Your task to perform on an android device: change keyboard looks Image 0: 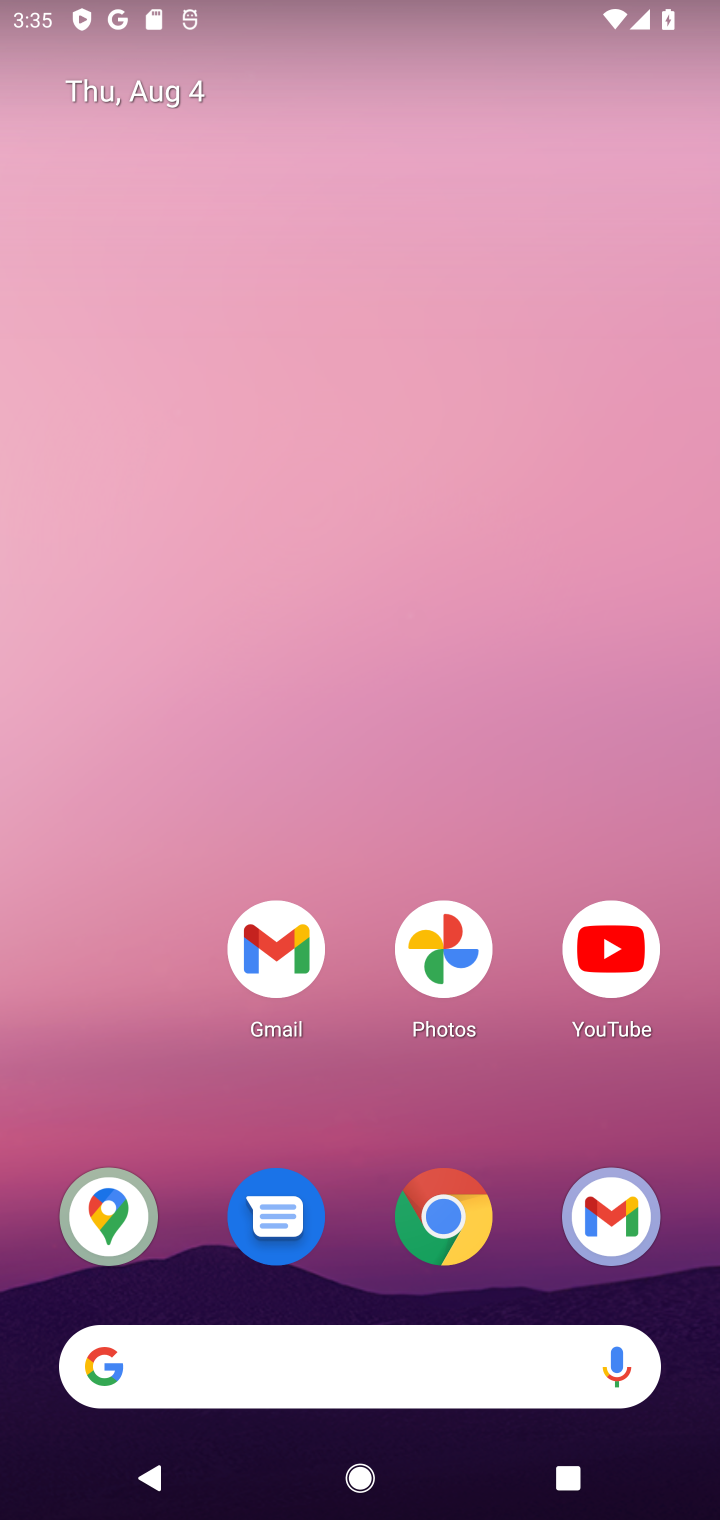
Step 0: drag from (215, 554) to (280, 18)
Your task to perform on an android device: change keyboard looks Image 1: 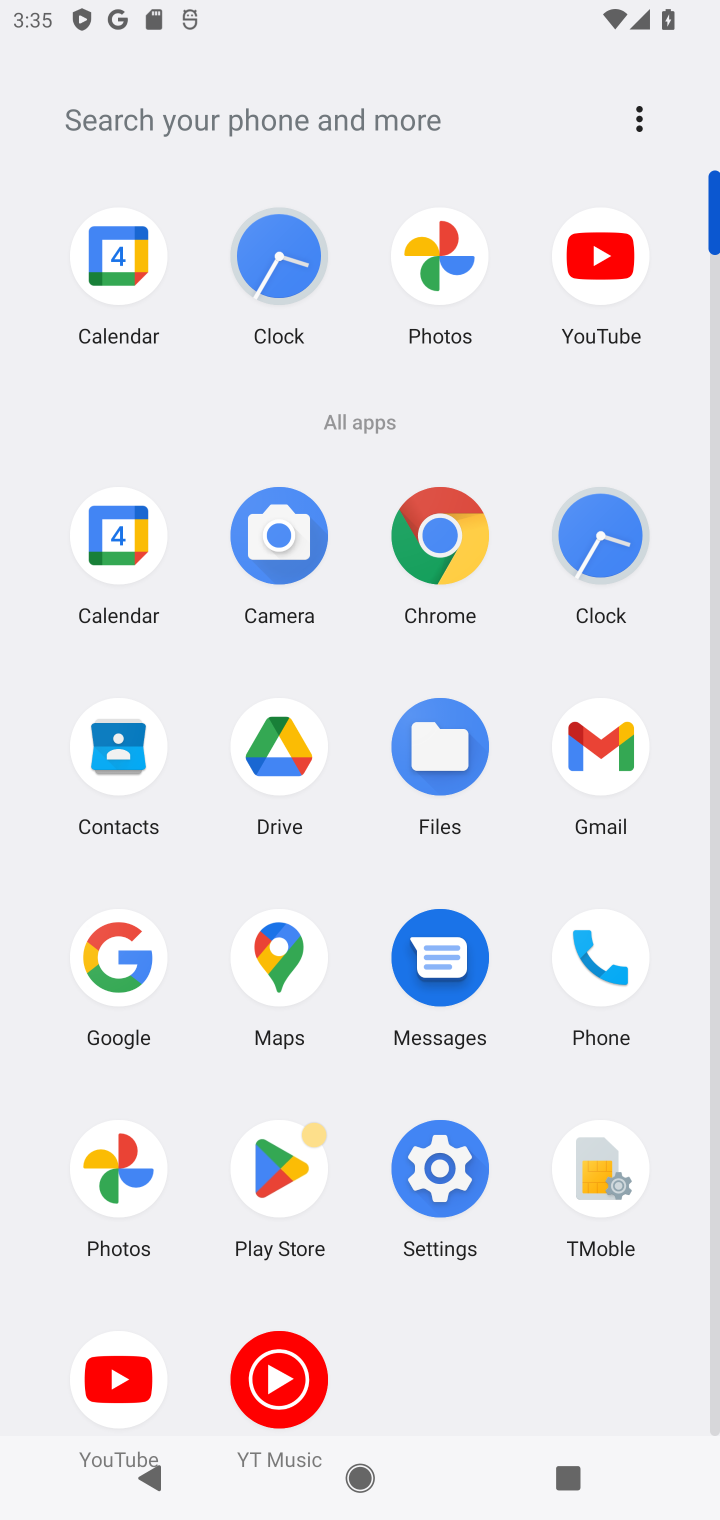
Step 1: click (414, 1171)
Your task to perform on an android device: change keyboard looks Image 2: 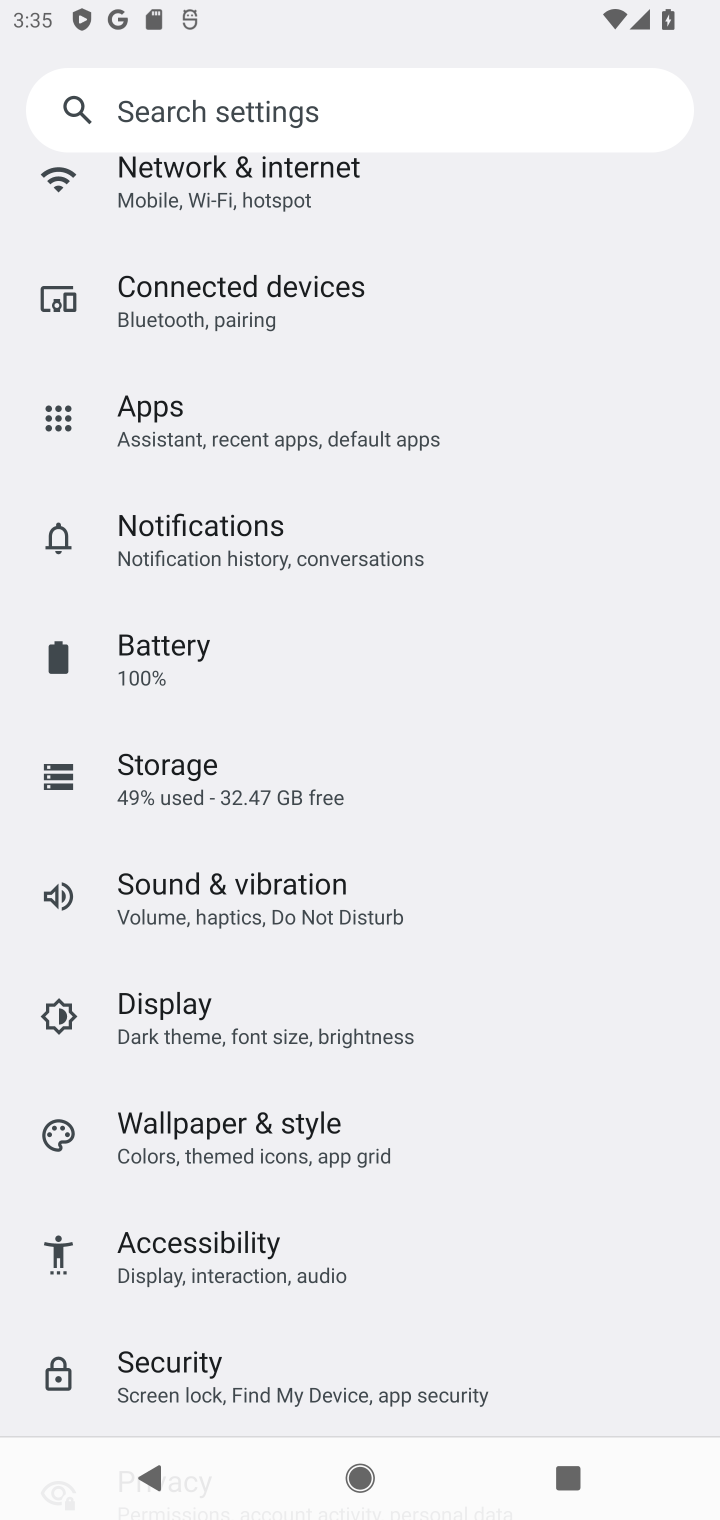
Step 2: drag from (338, 1296) to (614, 58)
Your task to perform on an android device: change keyboard looks Image 3: 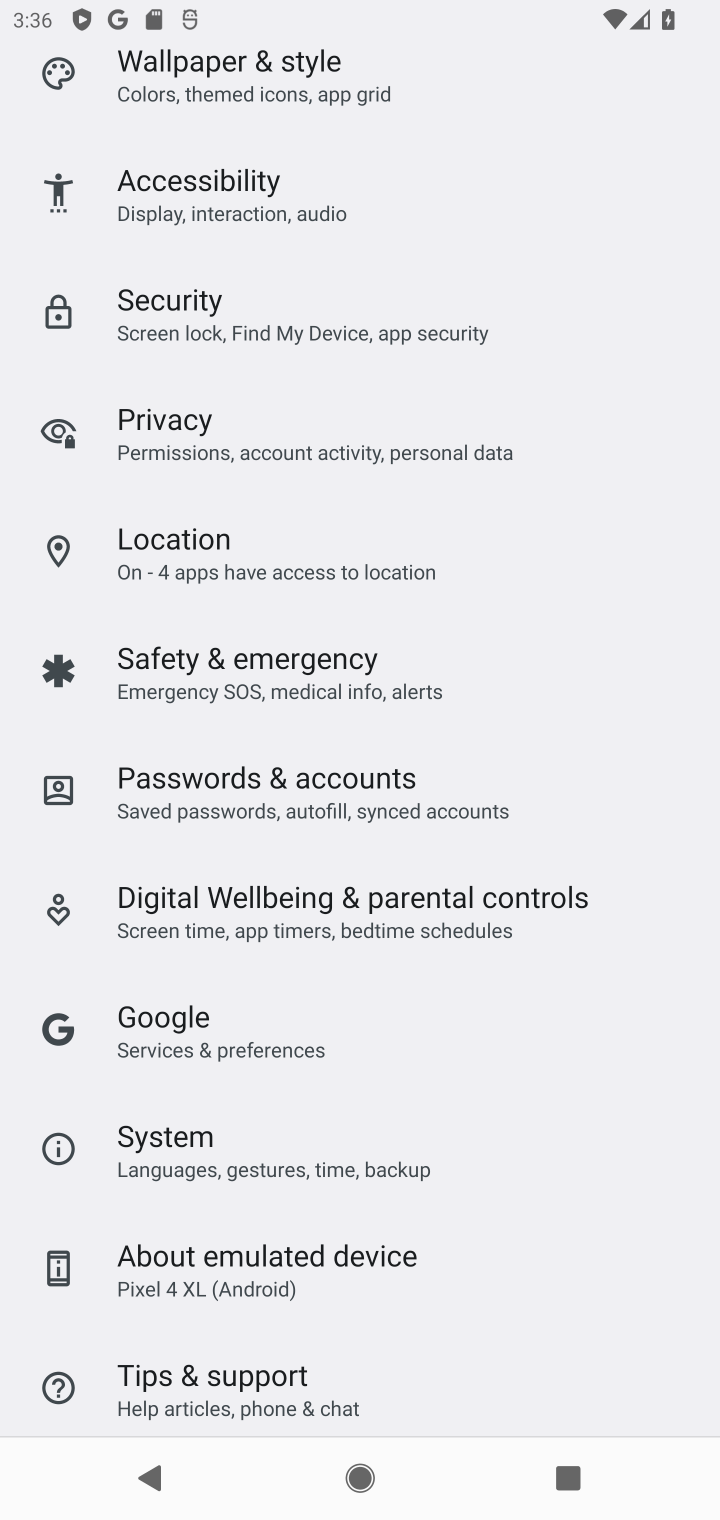
Step 3: drag from (347, 1335) to (483, 88)
Your task to perform on an android device: change keyboard looks Image 4: 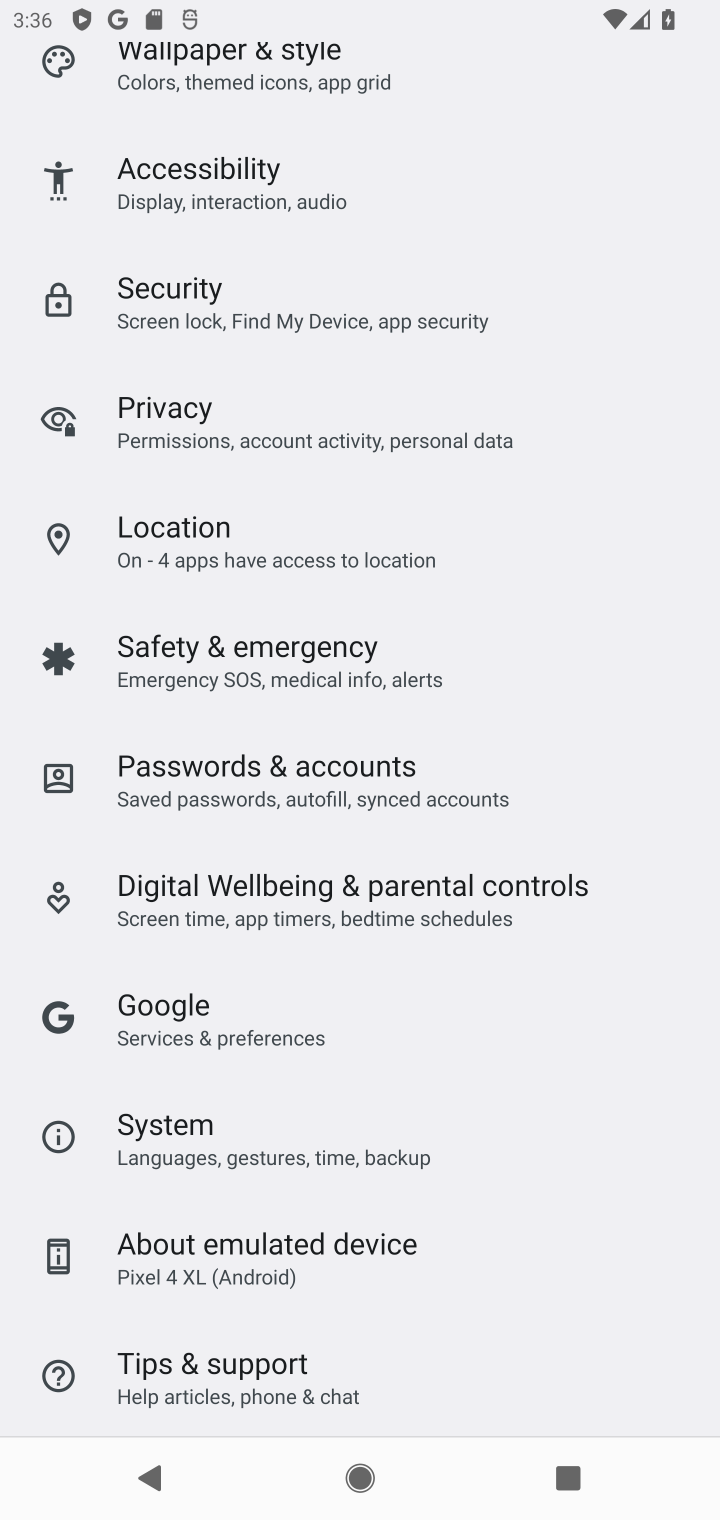
Step 4: click (249, 1131)
Your task to perform on an android device: change keyboard looks Image 5: 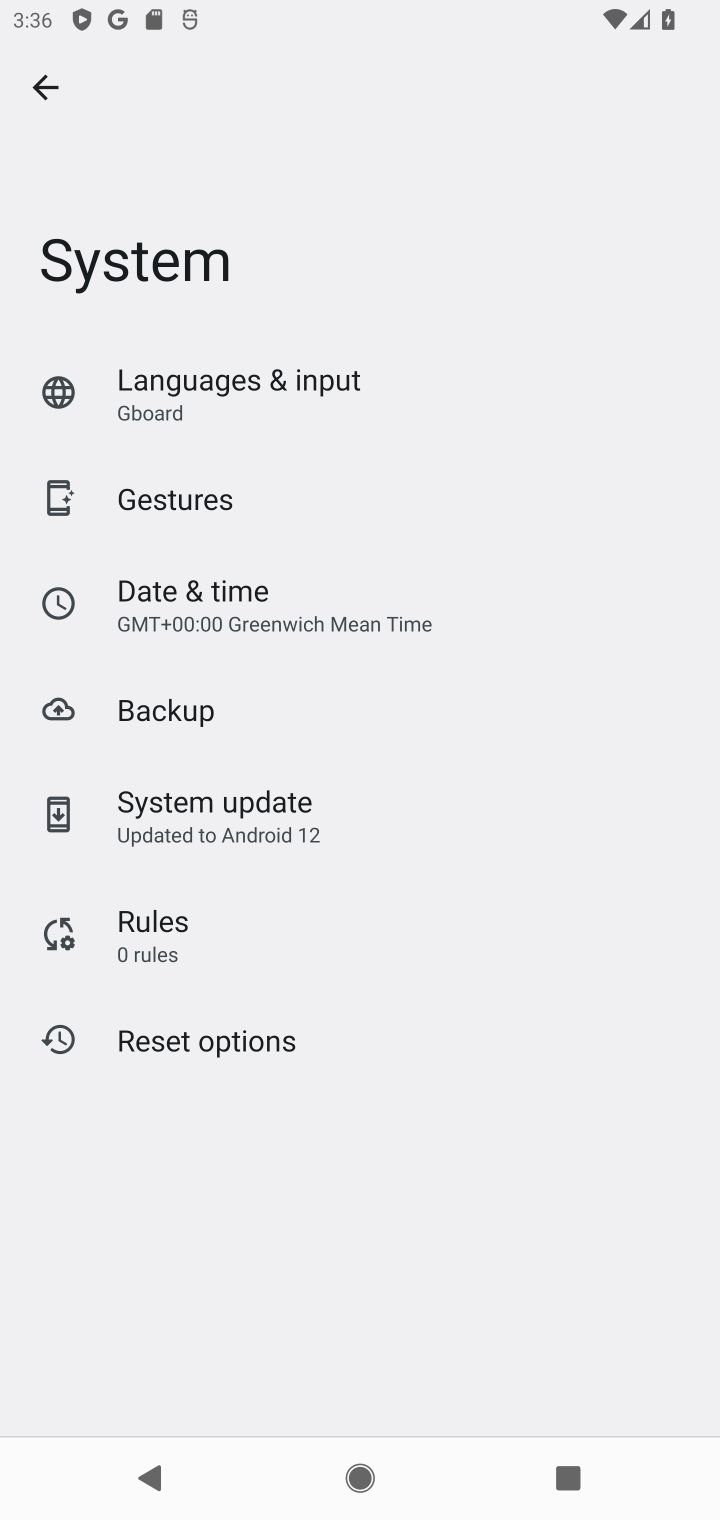
Step 5: click (248, 392)
Your task to perform on an android device: change keyboard looks Image 6: 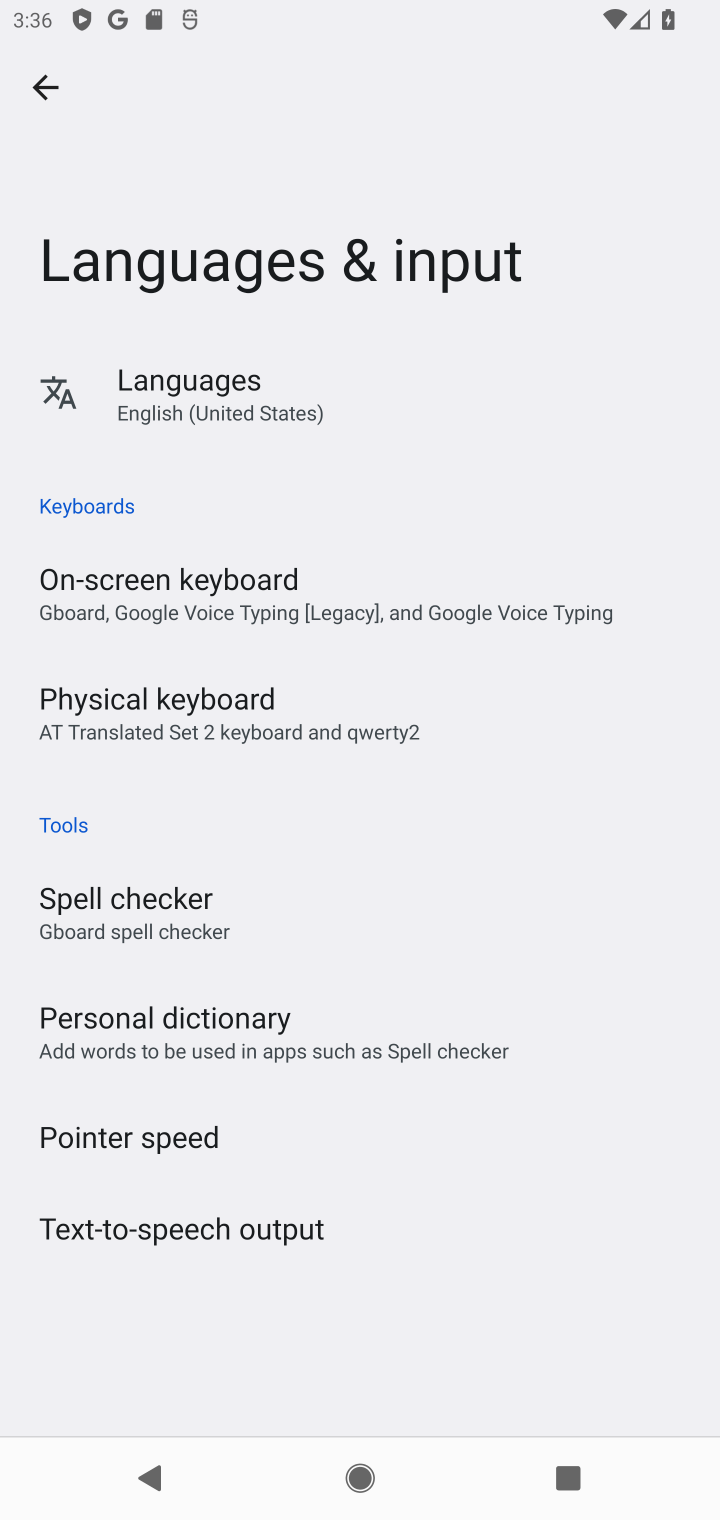
Step 6: click (264, 378)
Your task to perform on an android device: change keyboard looks Image 7: 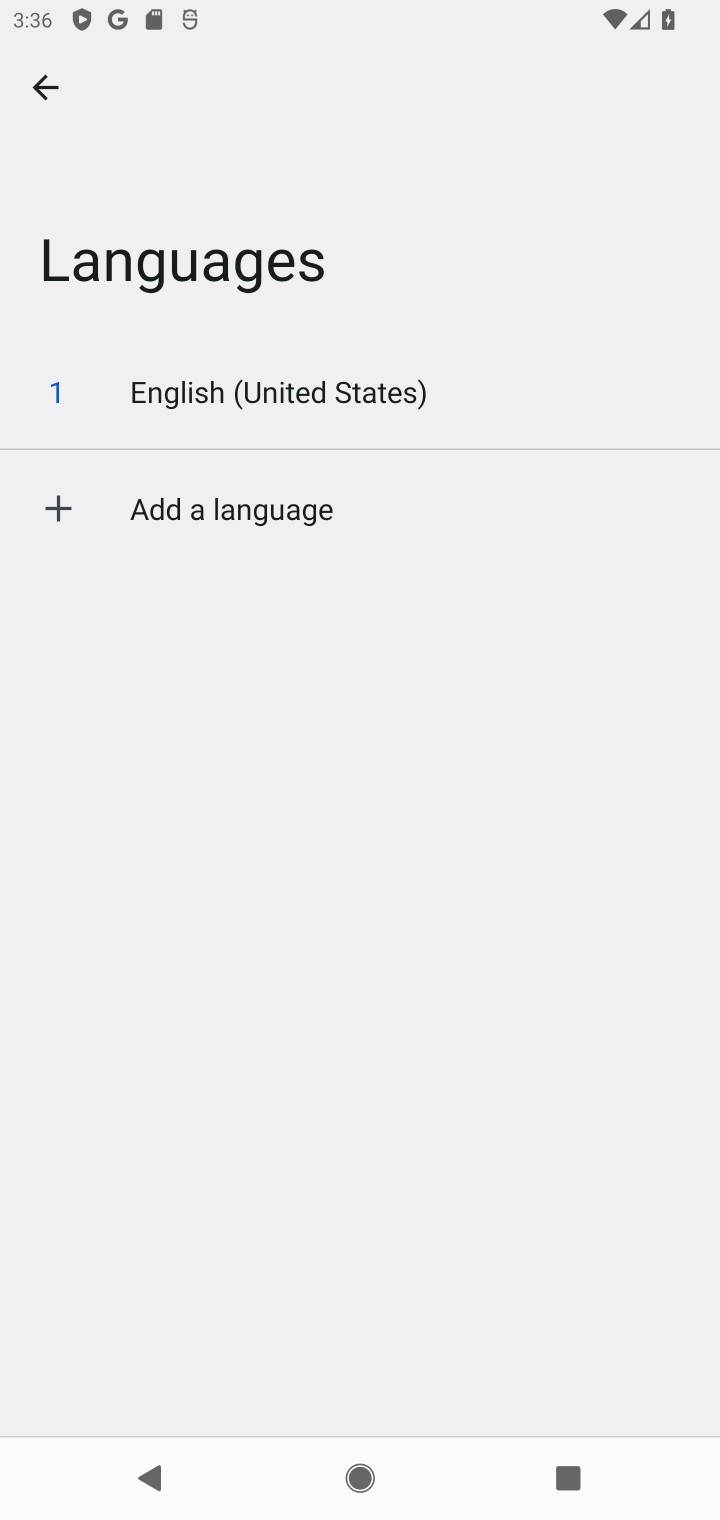
Step 7: click (30, 88)
Your task to perform on an android device: change keyboard looks Image 8: 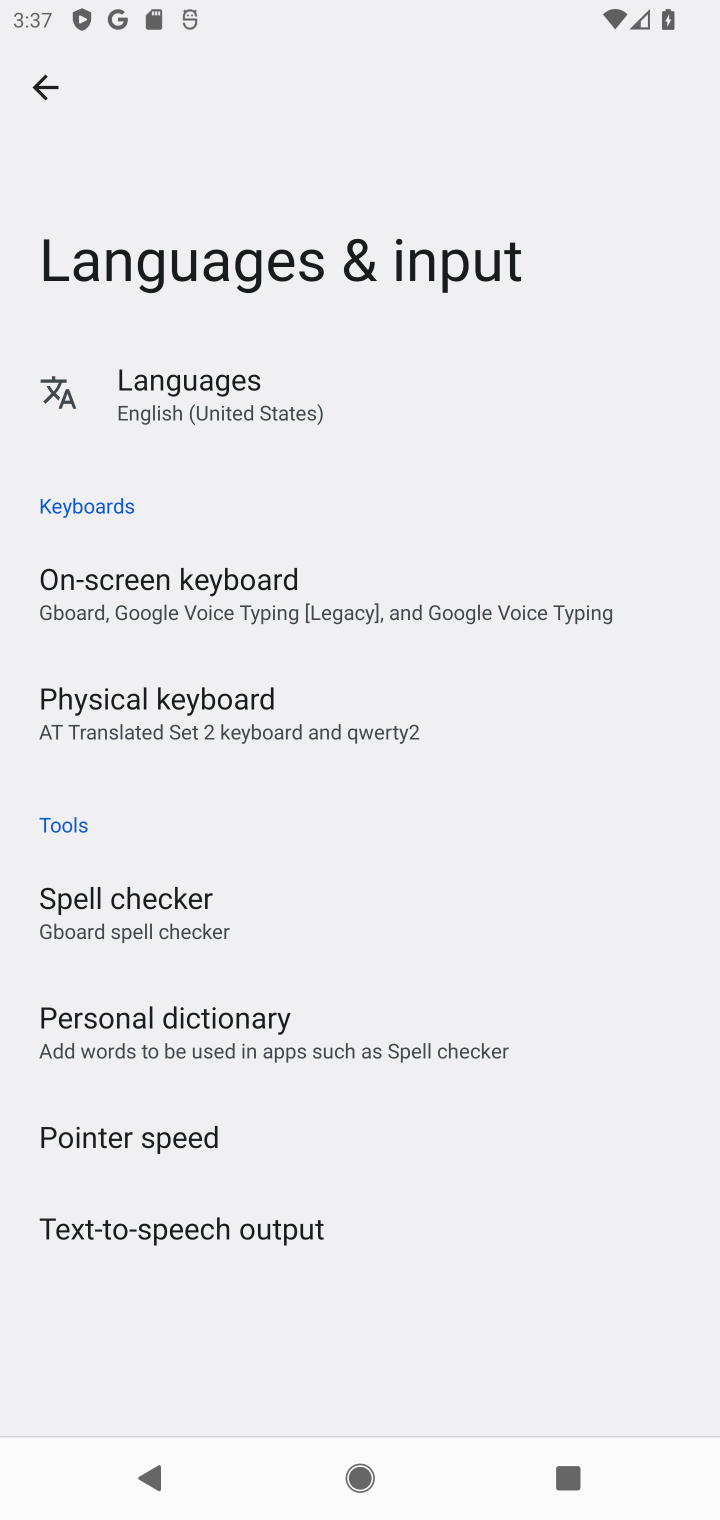
Step 8: click (329, 587)
Your task to perform on an android device: change keyboard looks Image 9: 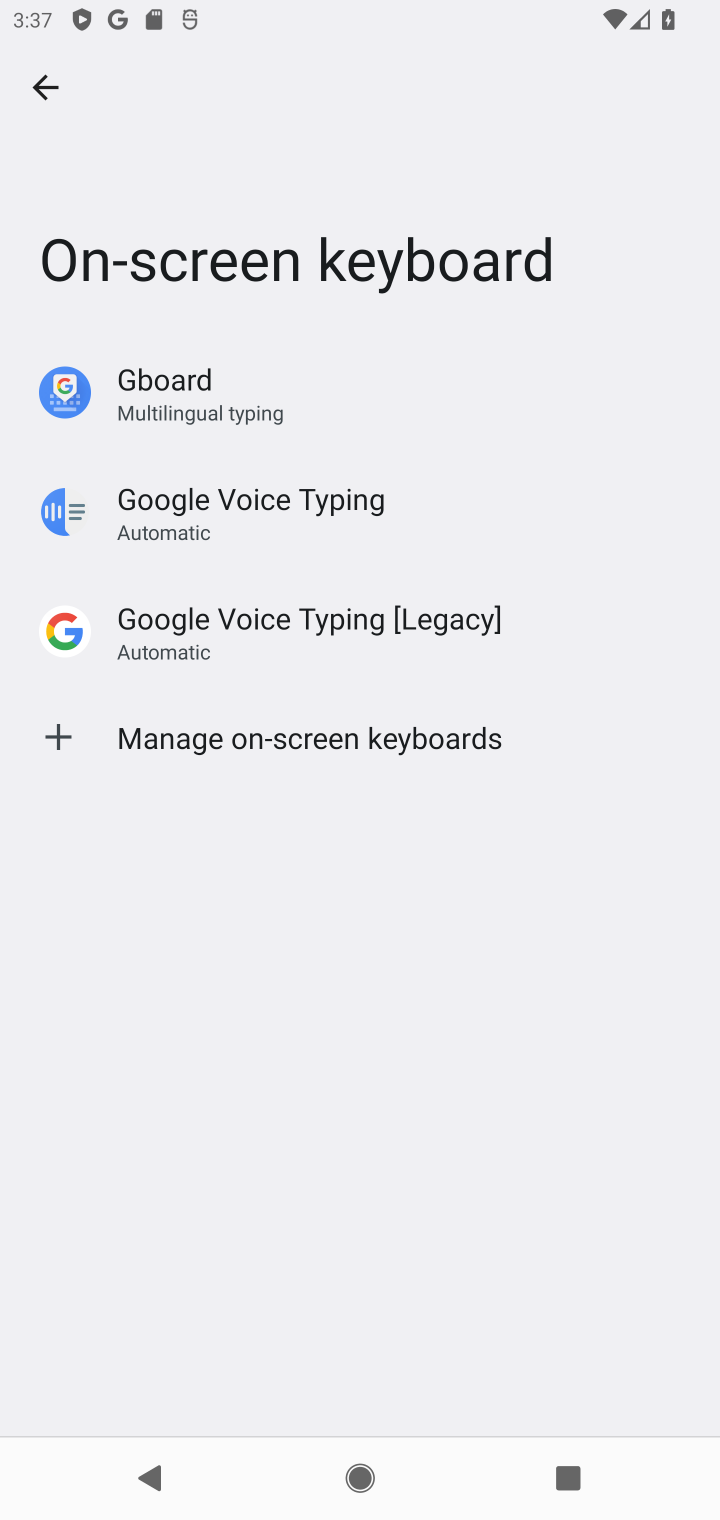
Step 9: click (72, 78)
Your task to perform on an android device: change keyboard looks Image 10: 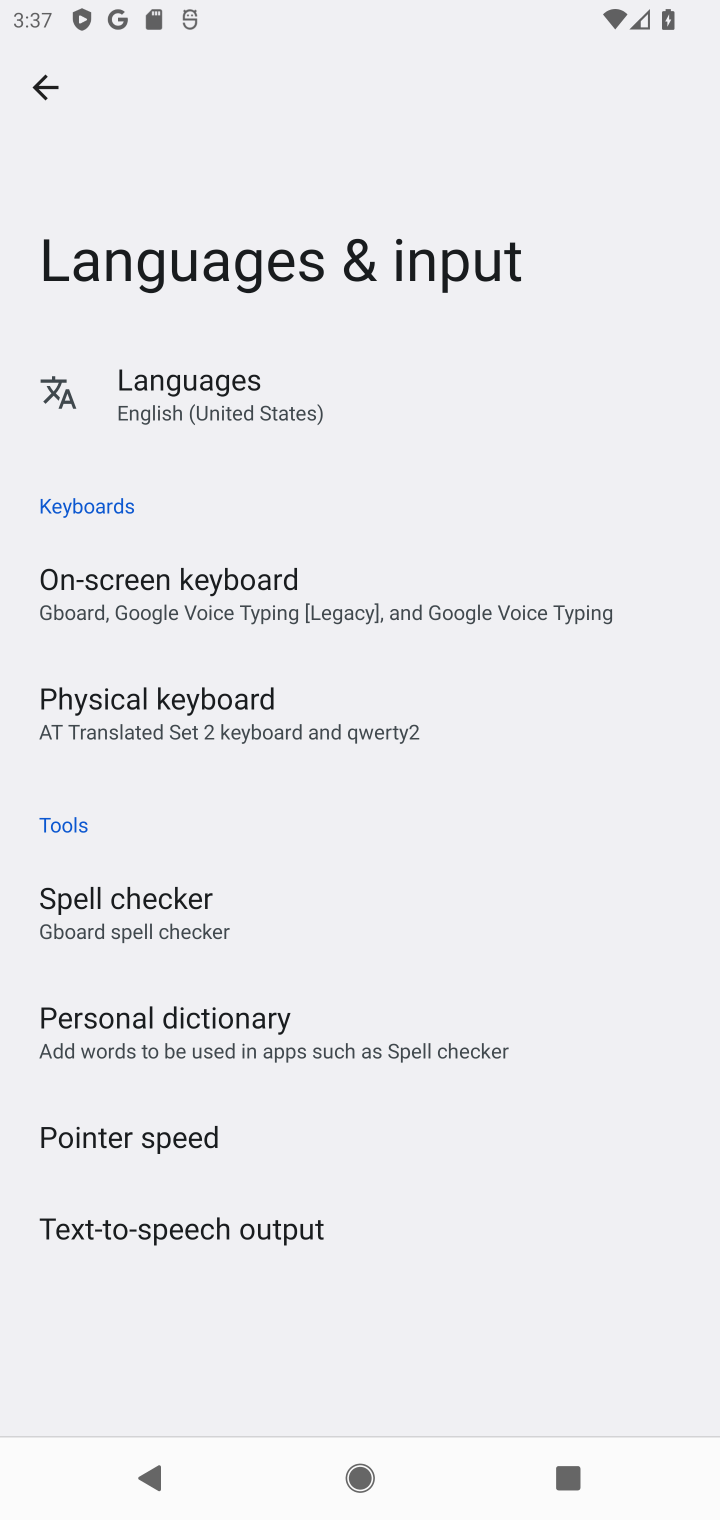
Step 10: click (304, 700)
Your task to perform on an android device: change keyboard looks Image 11: 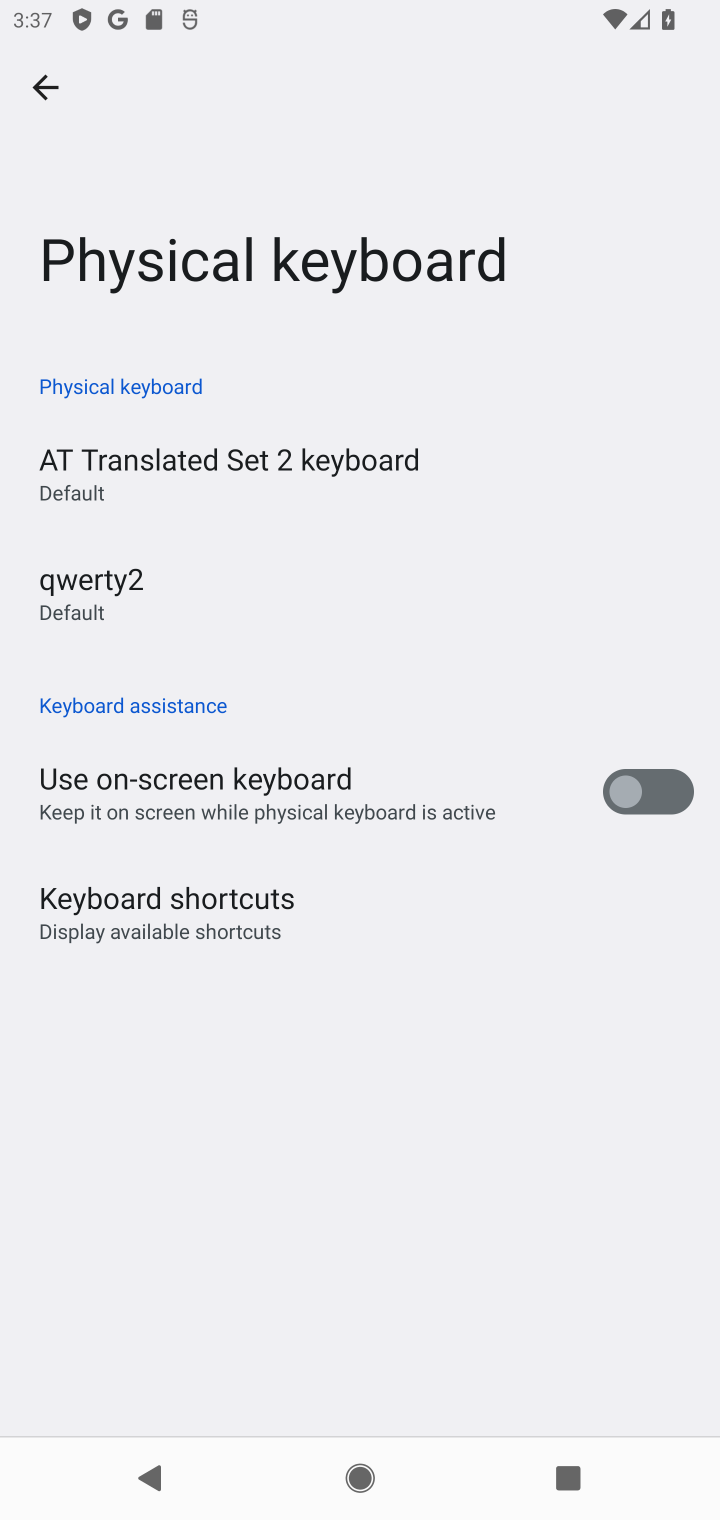
Step 11: click (43, 78)
Your task to perform on an android device: change keyboard looks Image 12: 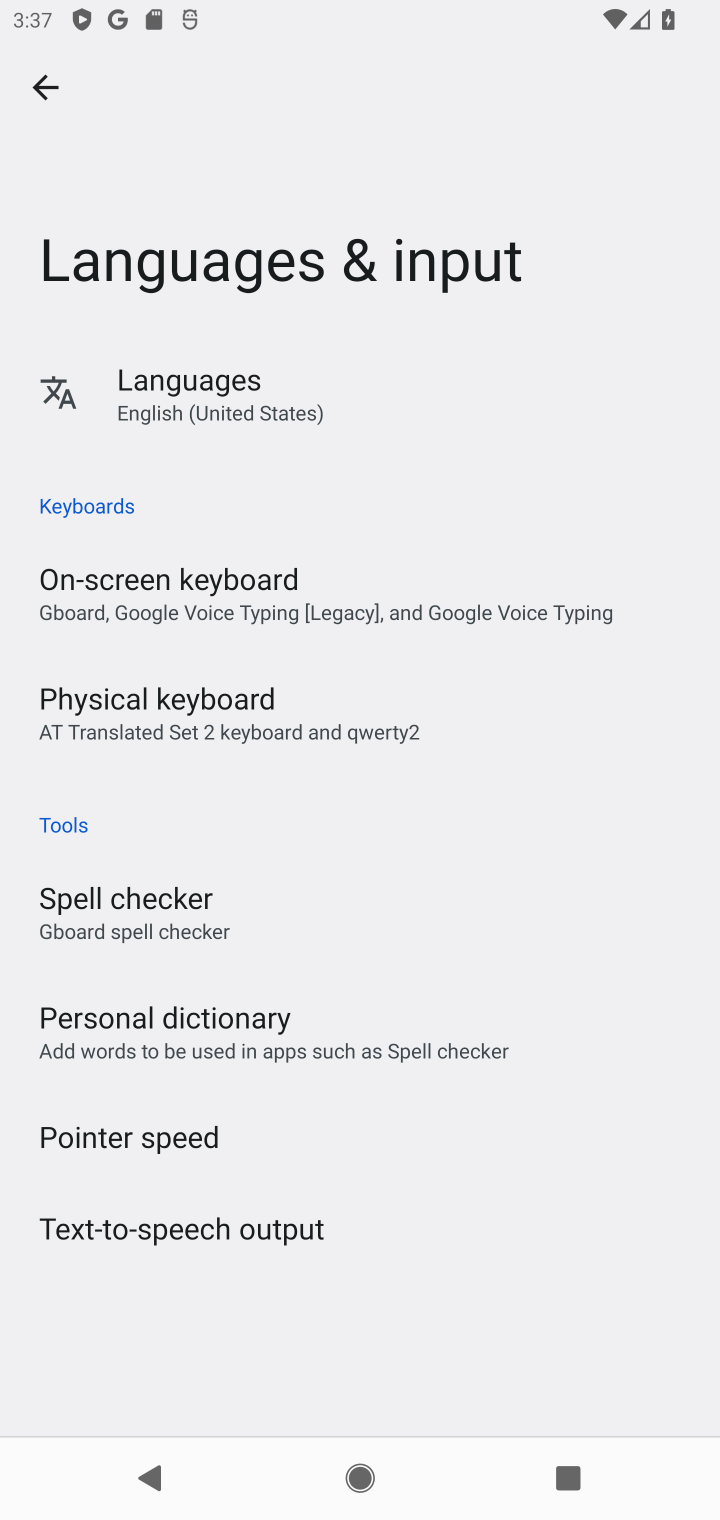
Step 12: click (370, 598)
Your task to perform on an android device: change keyboard looks Image 13: 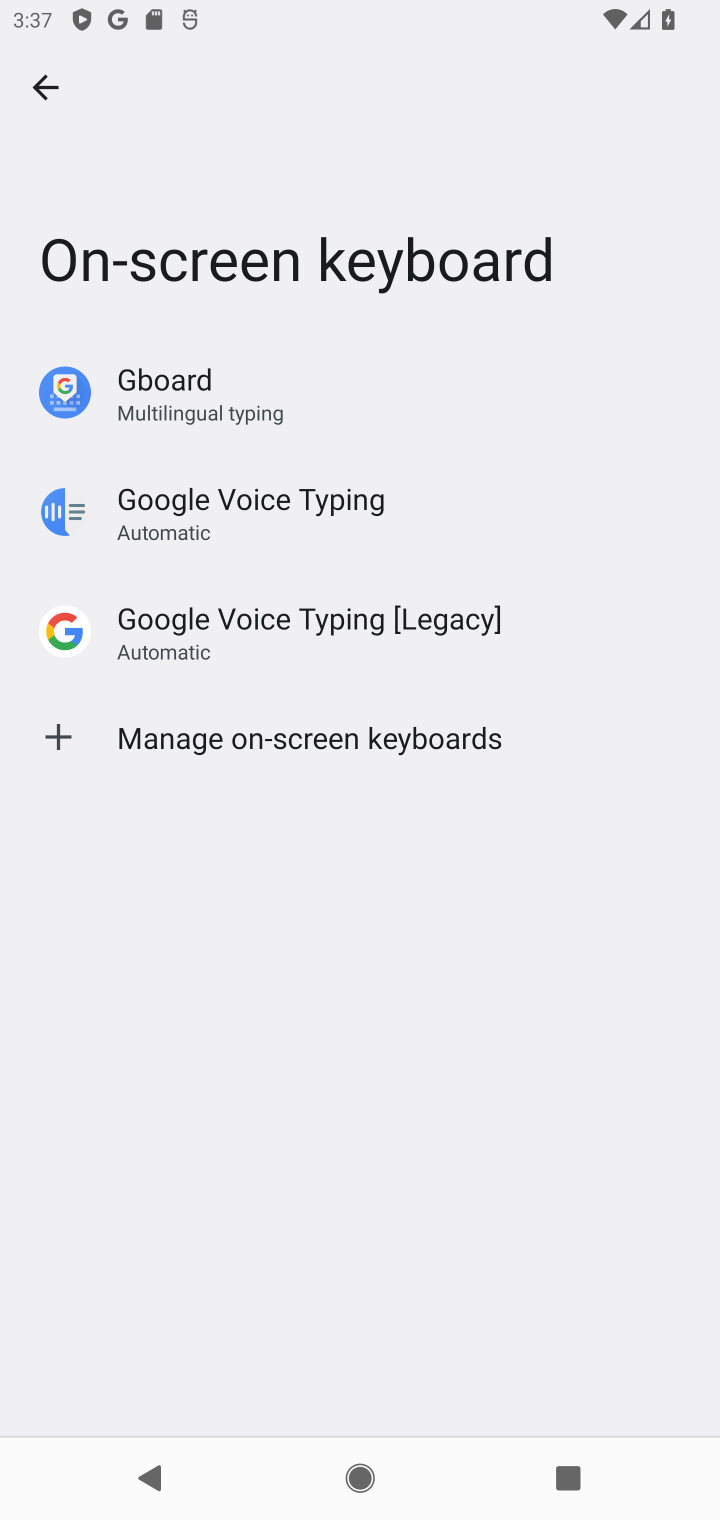
Step 13: click (189, 394)
Your task to perform on an android device: change keyboard looks Image 14: 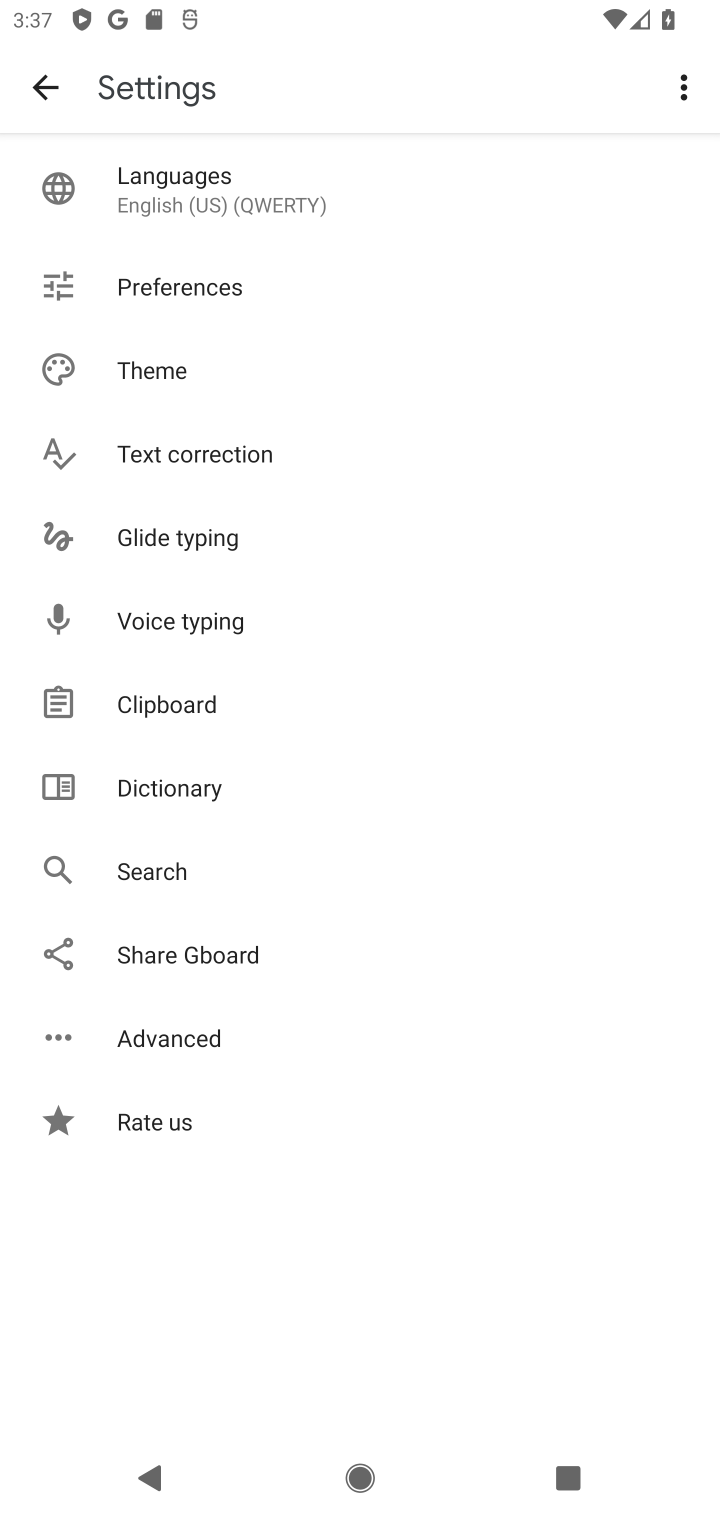
Step 14: click (224, 365)
Your task to perform on an android device: change keyboard looks Image 15: 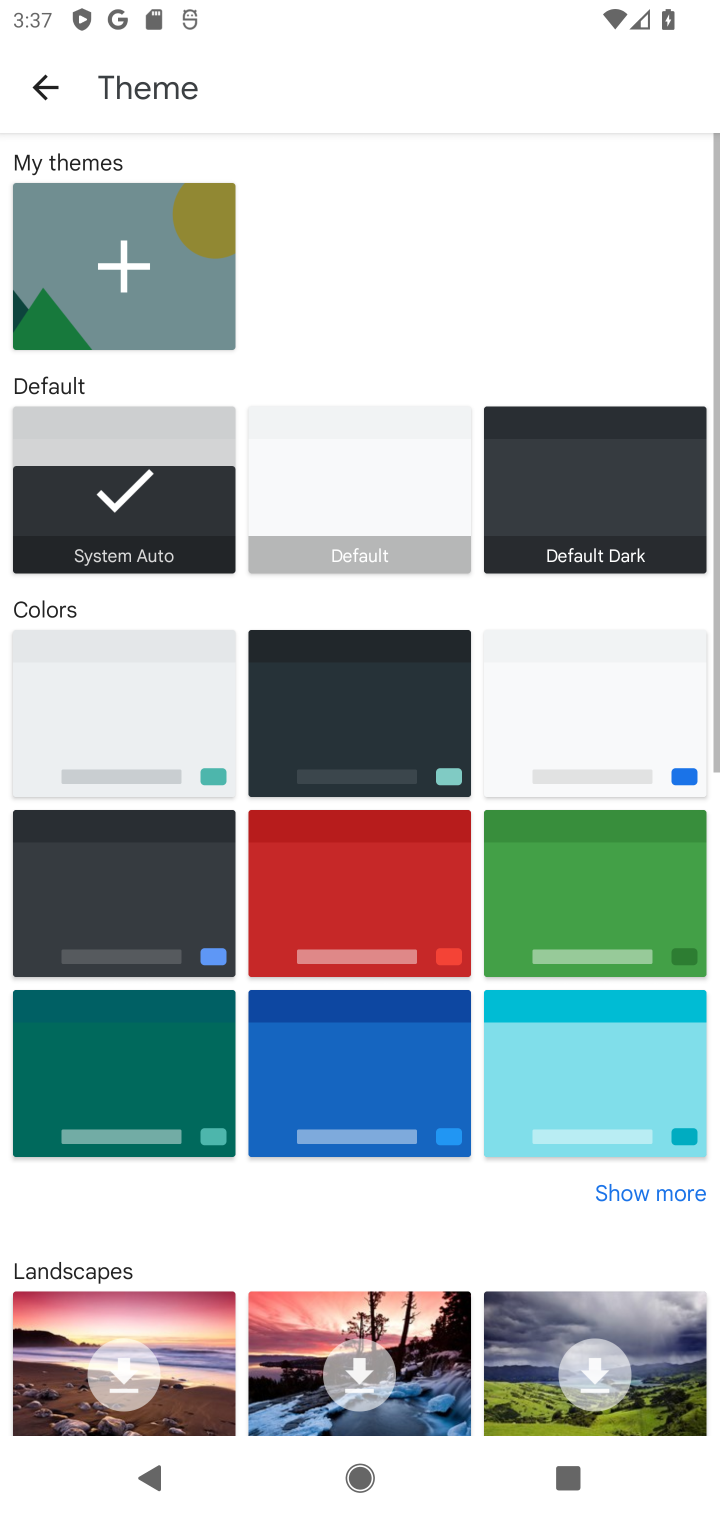
Step 15: click (333, 721)
Your task to perform on an android device: change keyboard looks Image 16: 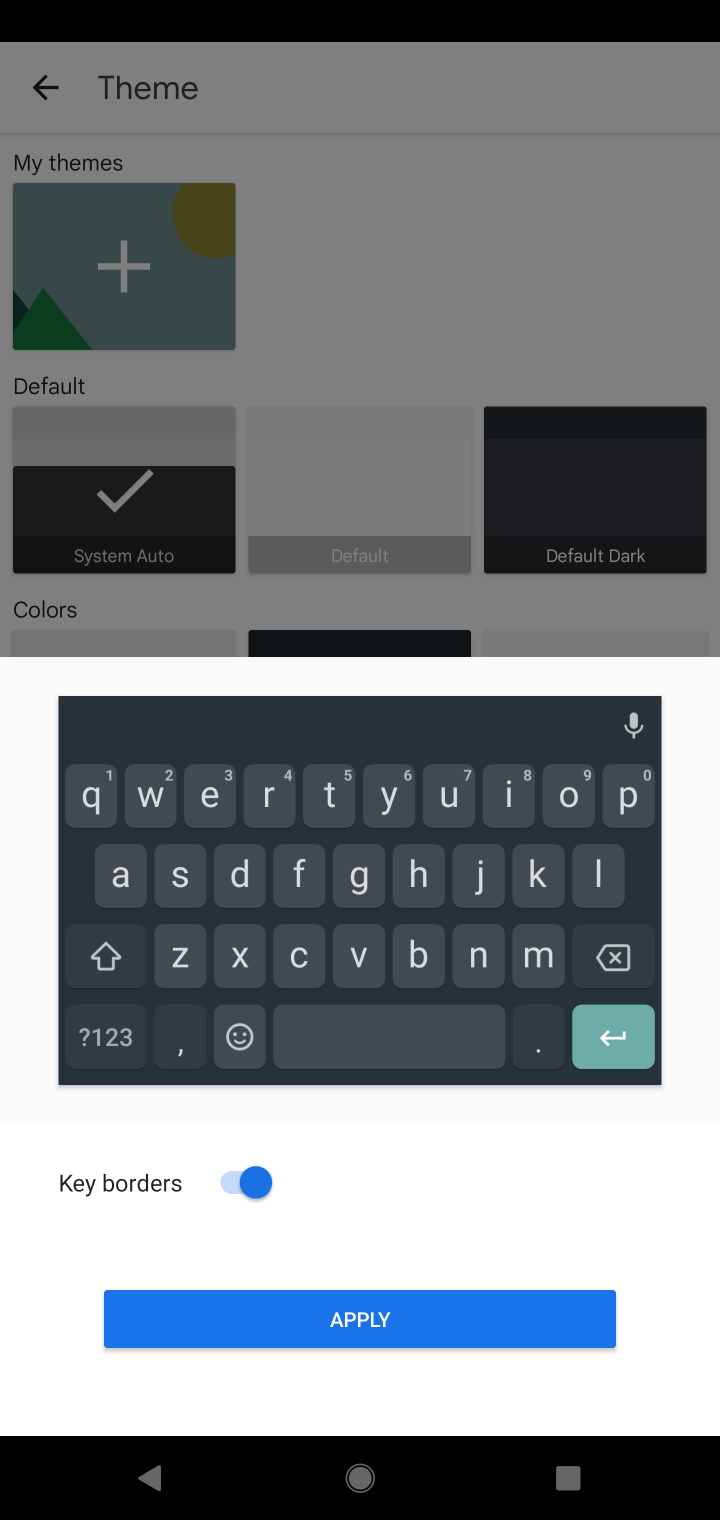
Step 16: click (266, 1329)
Your task to perform on an android device: change keyboard looks Image 17: 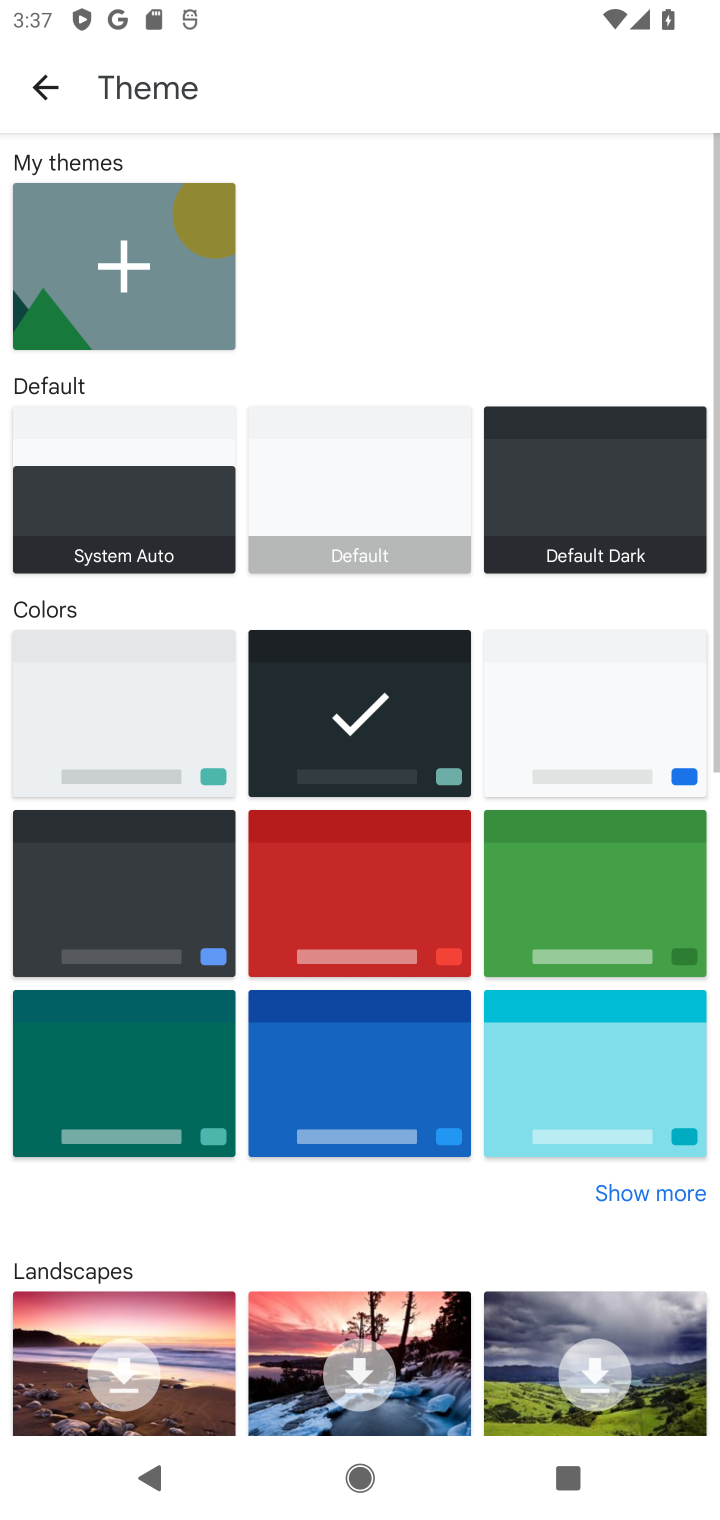
Step 17: task complete